Your task to perform on an android device: turn vacation reply on in the gmail app Image 0: 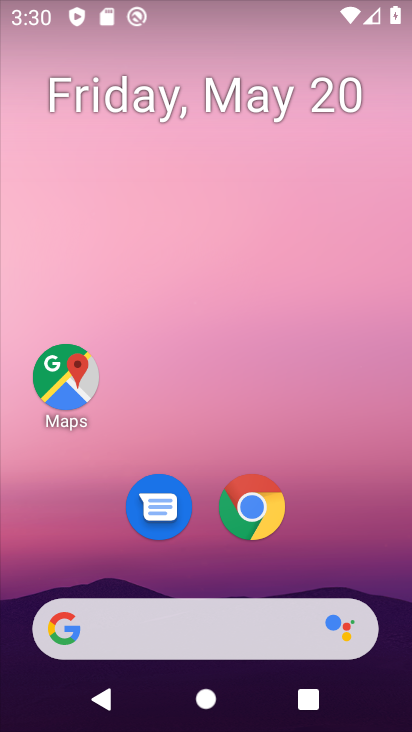
Step 0: drag from (347, 569) to (137, 120)
Your task to perform on an android device: turn vacation reply on in the gmail app Image 1: 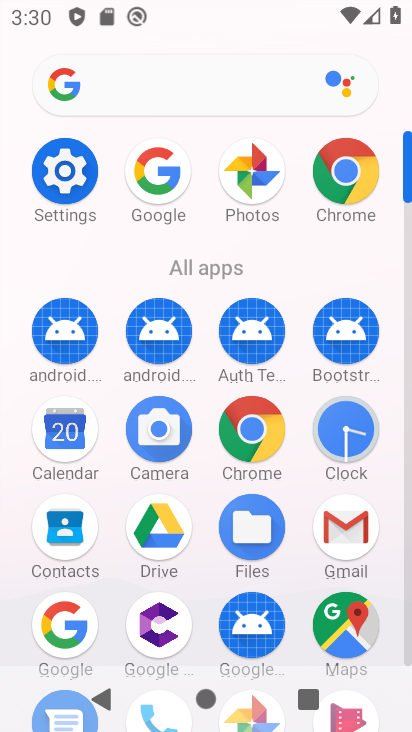
Step 1: click (345, 528)
Your task to perform on an android device: turn vacation reply on in the gmail app Image 2: 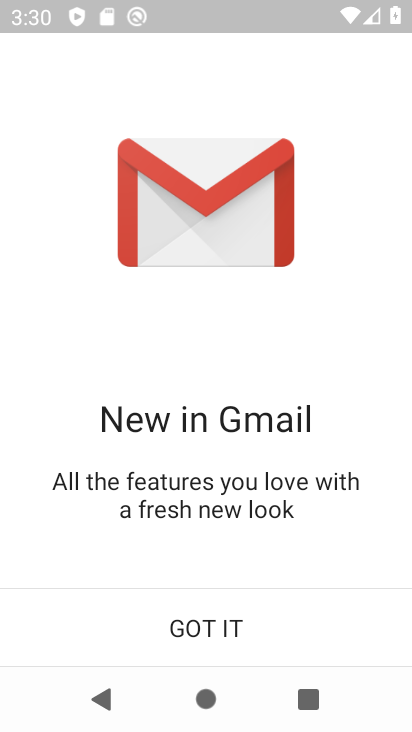
Step 2: click (212, 626)
Your task to perform on an android device: turn vacation reply on in the gmail app Image 3: 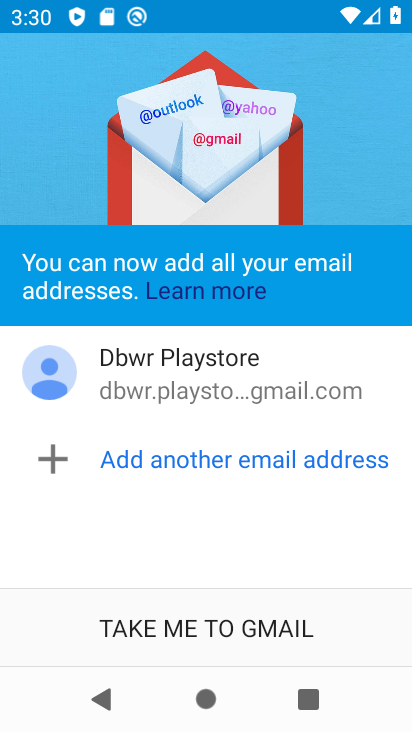
Step 3: click (212, 626)
Your task to perform on an android device: turn vacation reply on in the gmail app Image 4: 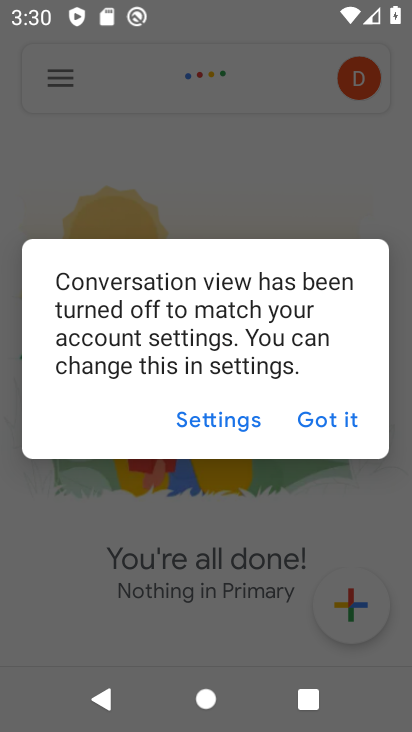
Step 4: click (319, 424)
Your task to perform on an android device: turn vacation reply on in the gmail app Image 5: 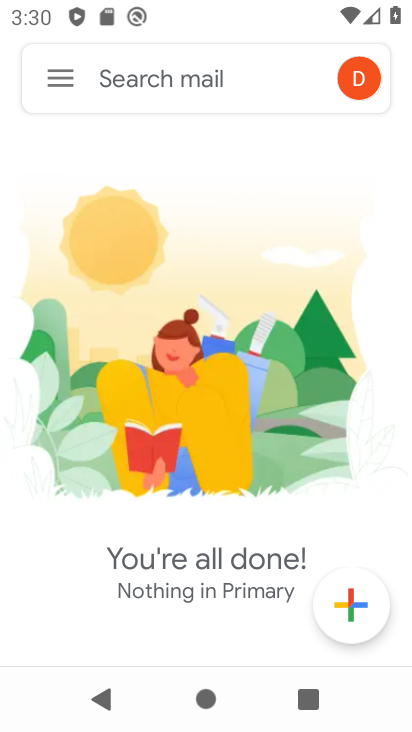
Step 5: click (56, 85)
Your task to perform on an android device: turn vacation reply on in the gmail app Image 6: 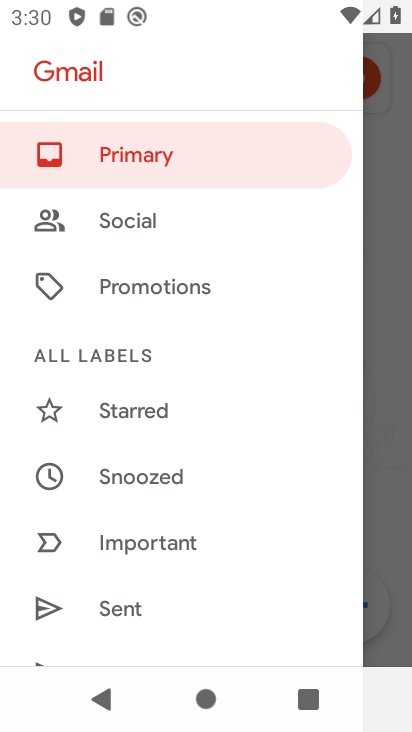
Step 6: drag from (204, 562) to (236, 443)
Your task to perform on an android device: turn vacation reply on in the gmail app Image 7: 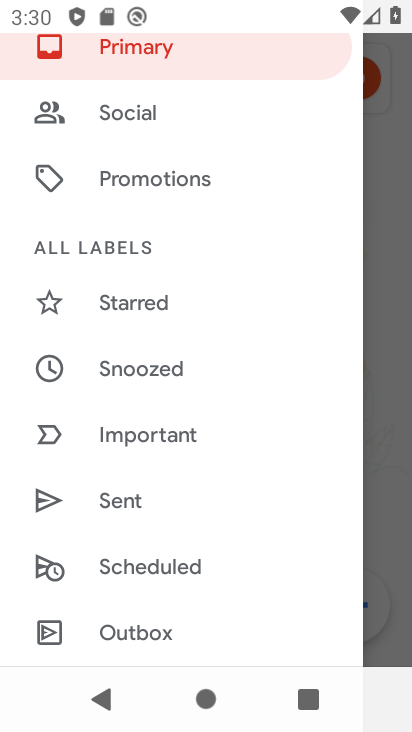
Step 7: drag from (160, 503) to (206, 378)
Your task to perform on an android device: turn vacation reply on in the gmail app Image 8: 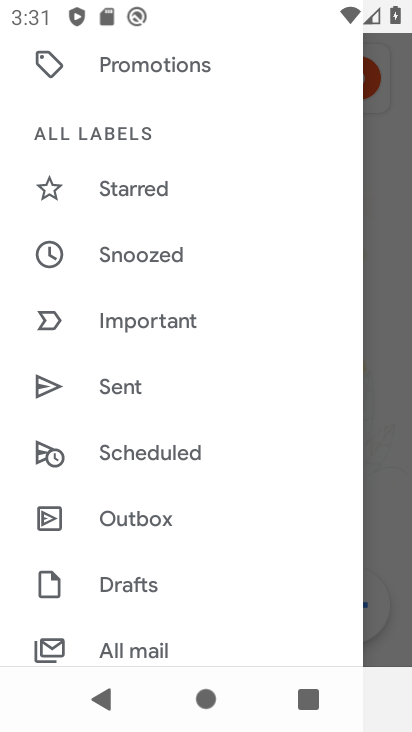
Step 8: drag from (163, 572) to (236, 461)
Your task to perform on an android device: turn vacation reply on in the gmail app Image 9: 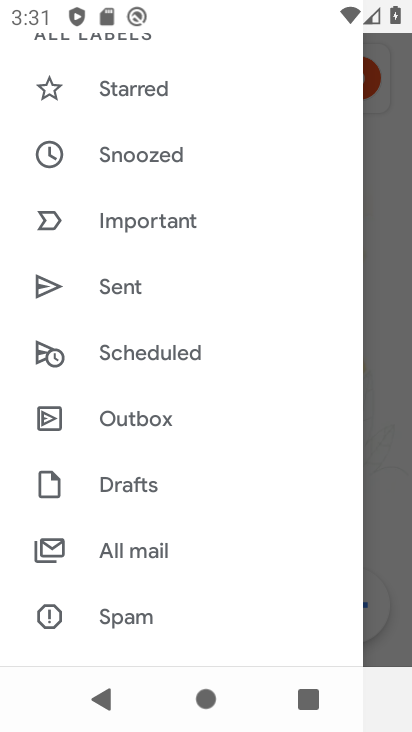
Step 9: drag from (147, 593) to (157, 487)
Your task to perform on an android device: turn vacation reply on in the gmail app Image 10: 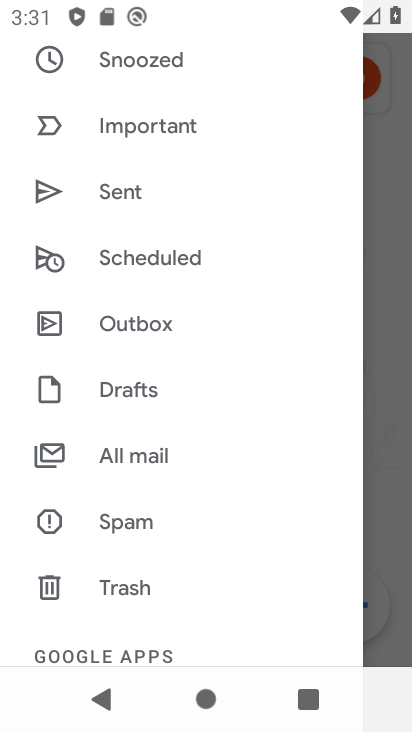
Step 10: drag from (152, 554) to (188, 469)
Your task to perform on an android device: turn vacation reply on in the gmail app Image 11: 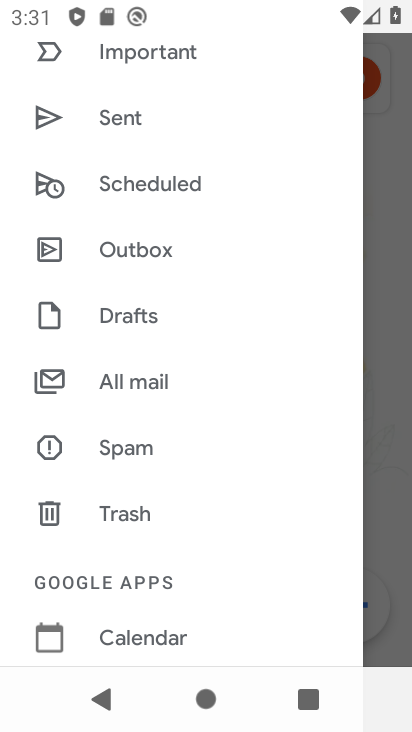
Step 11: drag from (127, 531) to (165, 431)
Your task to perform on an android device: turn vacation reply on in the gmail app Image 12: 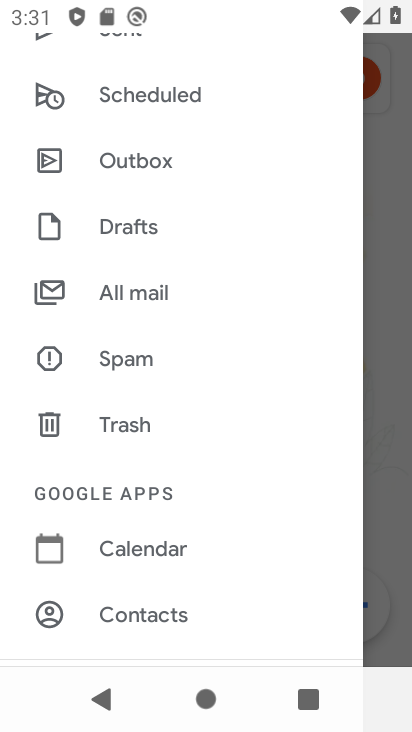
Step 12: drag from (144, 519) to (189, 391)
Your task to perform on an android device: turn vacation reply on in the gmail app Image 13: 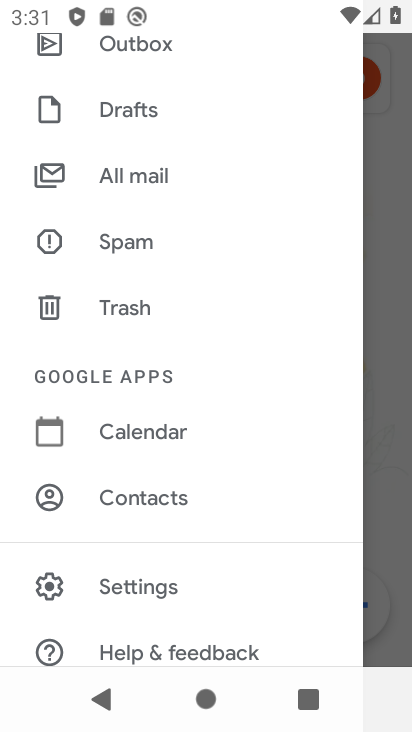
Step 13: drag from (132, 465) to (181, 385)
Your task to perform on an android device: turn vacation reply on in the gmail app Image 14: 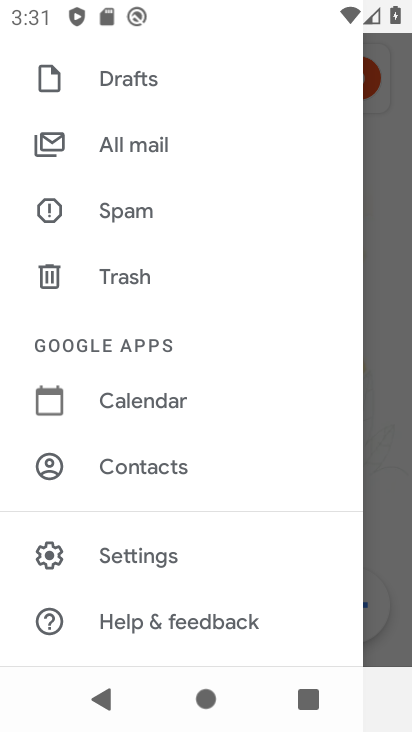
Step 14: click (155, 556)
Your task to perform on an android device: turn vacation reply on in the gmail app Image 15: 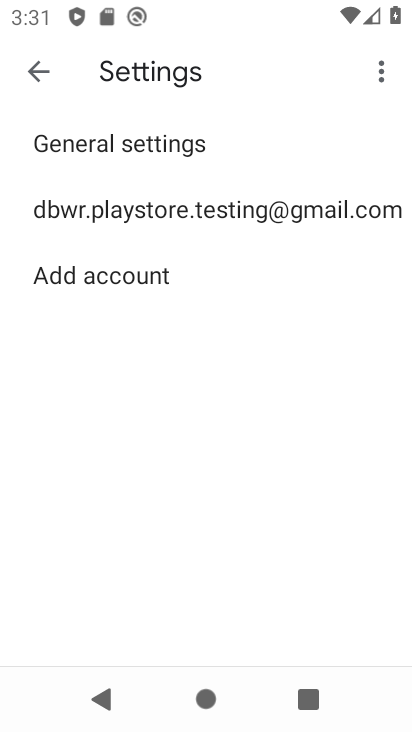
Step 15: click (227, 209)
Your task to perform on an android device: turn vacation reply on in the gmail app Image 16: 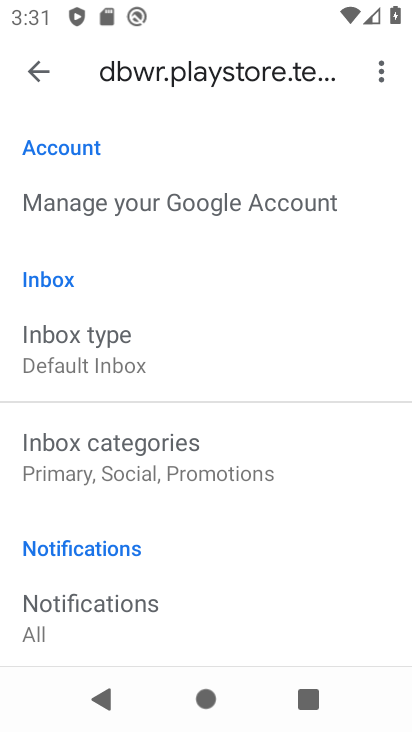
Step 16: drag from (129, 492) to (221, 374)
Your task to perform on an android device: turn vacation reply on in the gmail app Image 17: 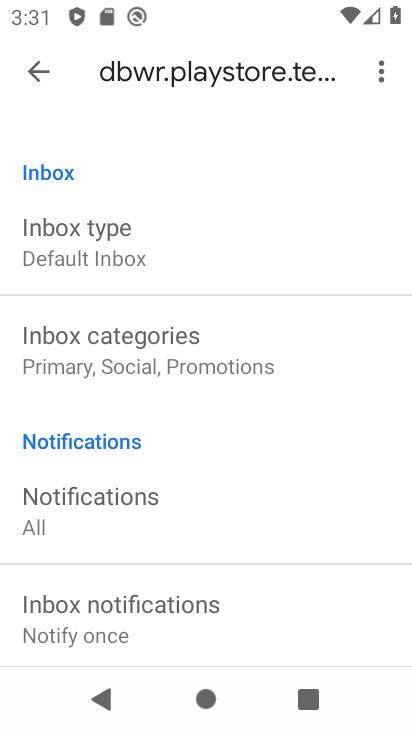
Step 17: drag from (121, 524) to (174, 435)
Your task to perform on an android device: turn vacation reply on in the gmail app Image 18: 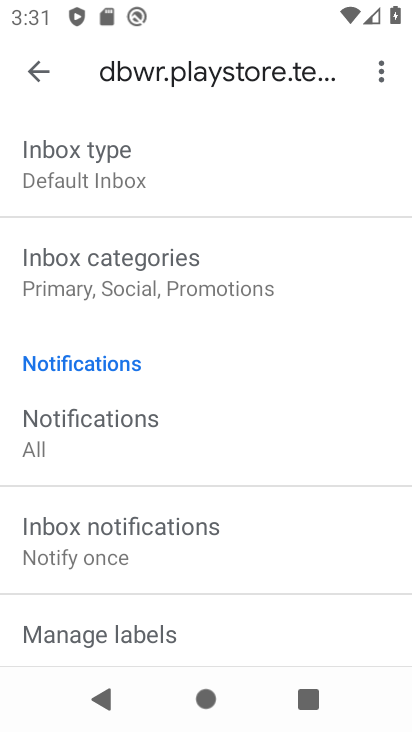
Step 18: drag from (107, 506) to (155, 415)
Your task to perform on an android device: turn vacation reply on in the gmail app Image 19: 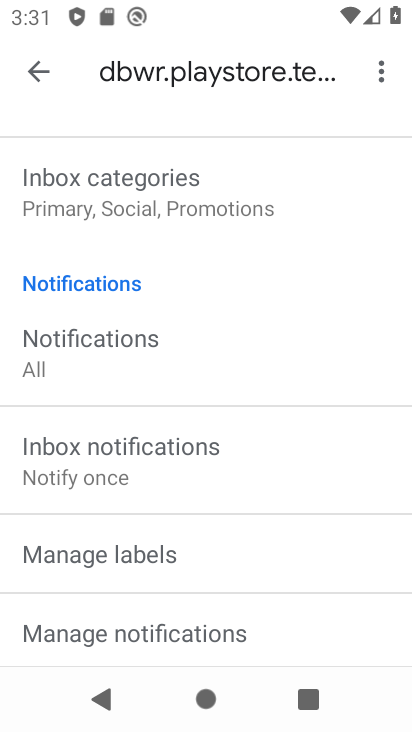
Step 19: drag from (117, 576) to (153, 450)
Your task to perform on an android device: turn vacation reply on in the gmail app Image 20: 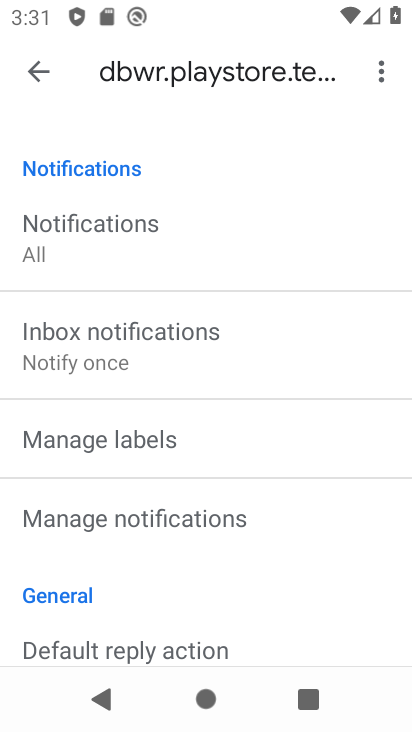
Step 20: drag from (165, 575) to (201, 461)
Your task to perform on an android device: turn vacation reply on in the gmail app Image 21: 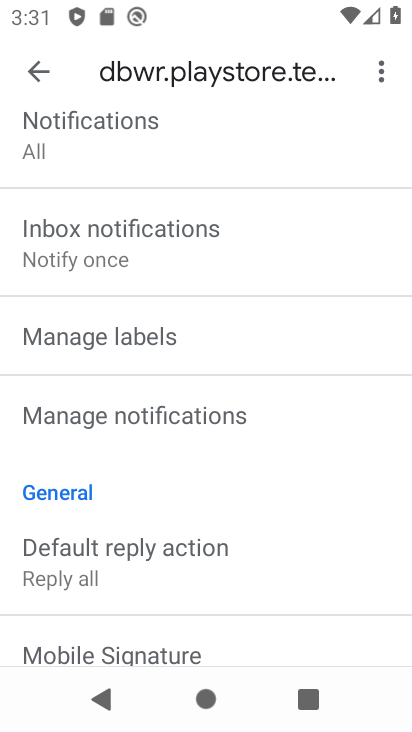
Step 21: drag from (144, 591) to (218, 438)
Your task to perform on an android device: turn vacation reply on in the gmail app Image 22: 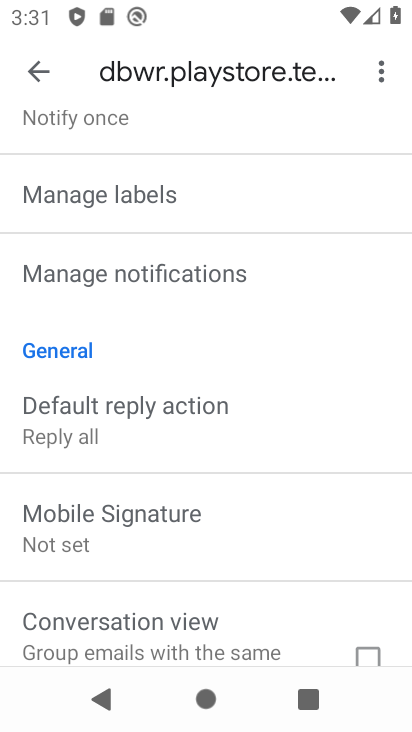
Step 22: drag from (151, 556) to (268, 394)
Your task to perform on an android device: turn vacation reply on in the gmail app Image 23: 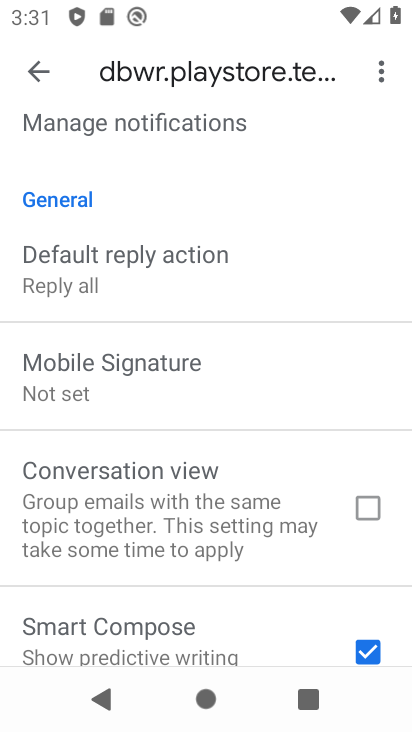
Step 23: drag from (151, 579) to (277, 423)
Your task to perform on an android device: turn vacation reply on in the gmail app Image 24: 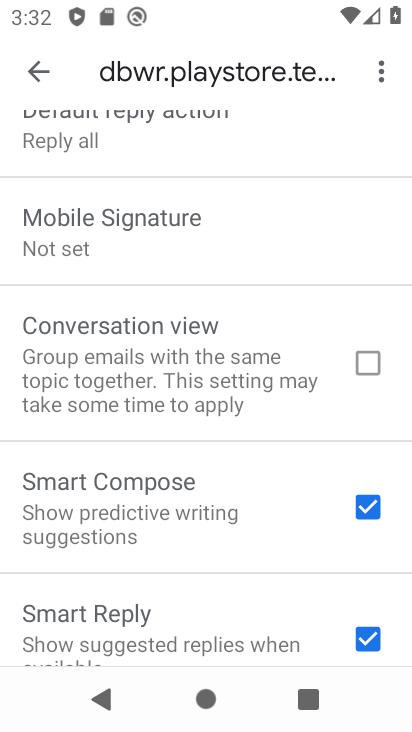
Step 24: drag from (93, 598) to (214, 448)
Your task to perform on an android device: turn vacation reply on in the gmail app Image 25: 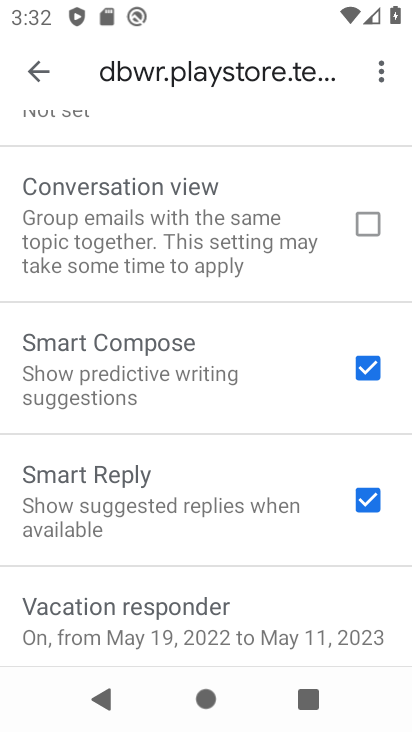
Step 25: click (138, 624)
Your task to perform on an android device: turn vacation reply on in the gmail app Image 26: 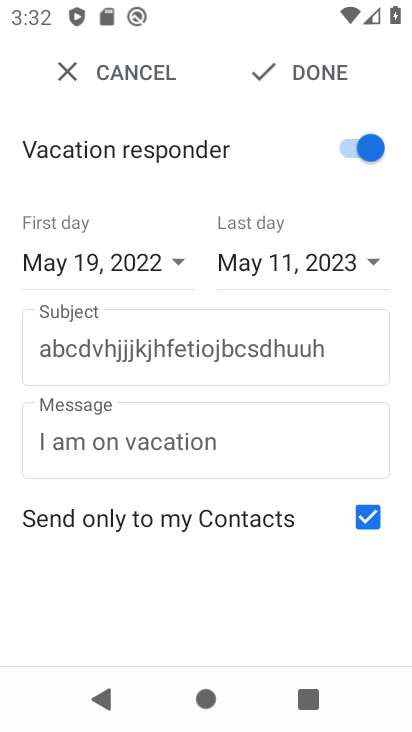
Step 26: task complete